Your task to perform on an android device: Search for duracell triple a on ebay.com, select the first entry, and add it to the cart. Image 0: 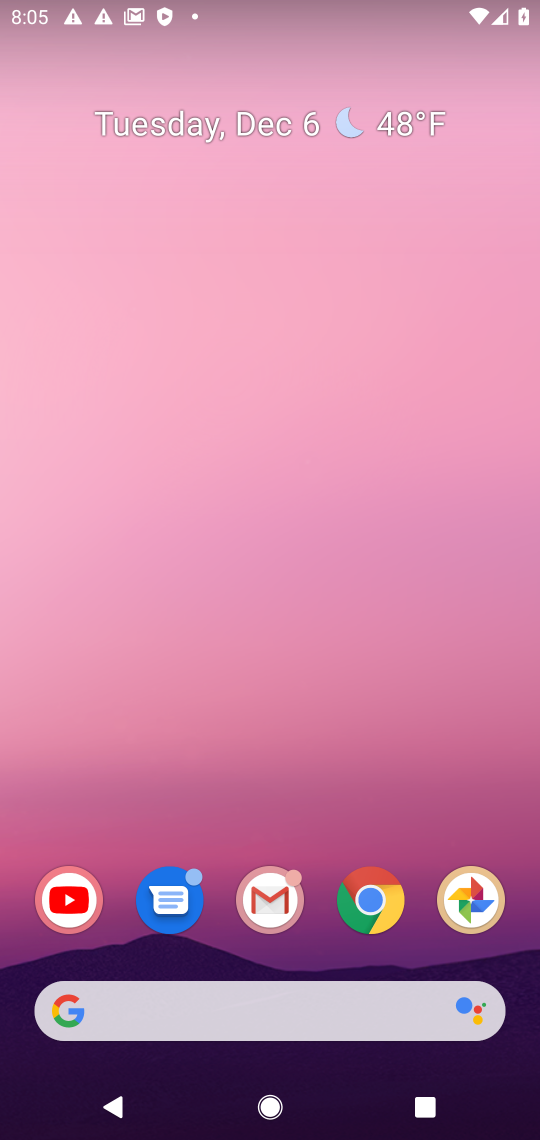
Step 0: drag from (194, 939) to (300, 277)
Your task to perform on an android device: Search for duracell triple a on ebay.com, select the first entry, and add it to the cart. Image 1: 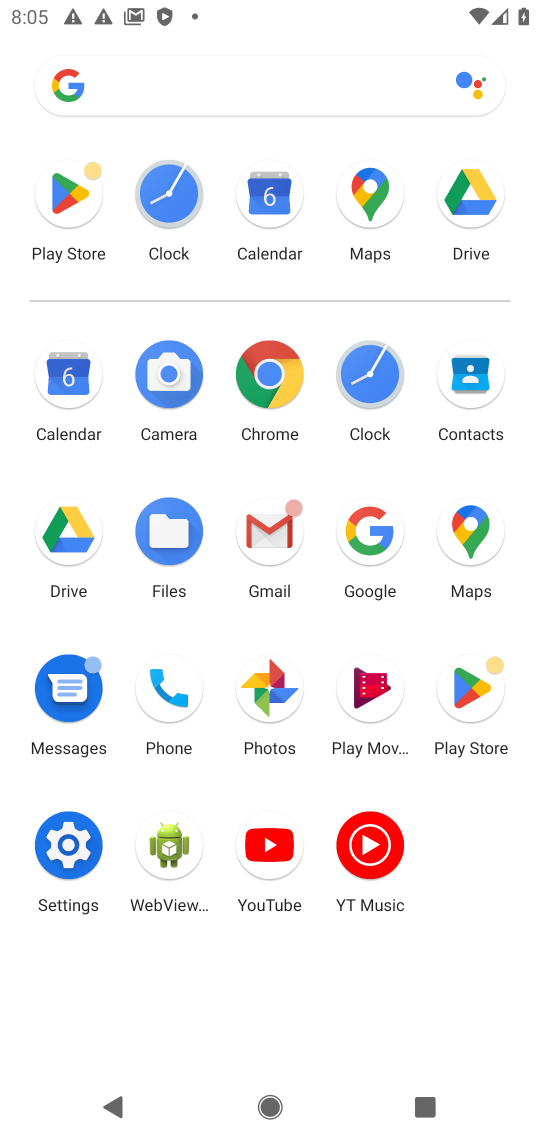
Step 1: click (380, 512)
Your task to perform on an android device: Search for duracell triple a on ebay.com, select the first entry, and add it to the cart. Image 2: 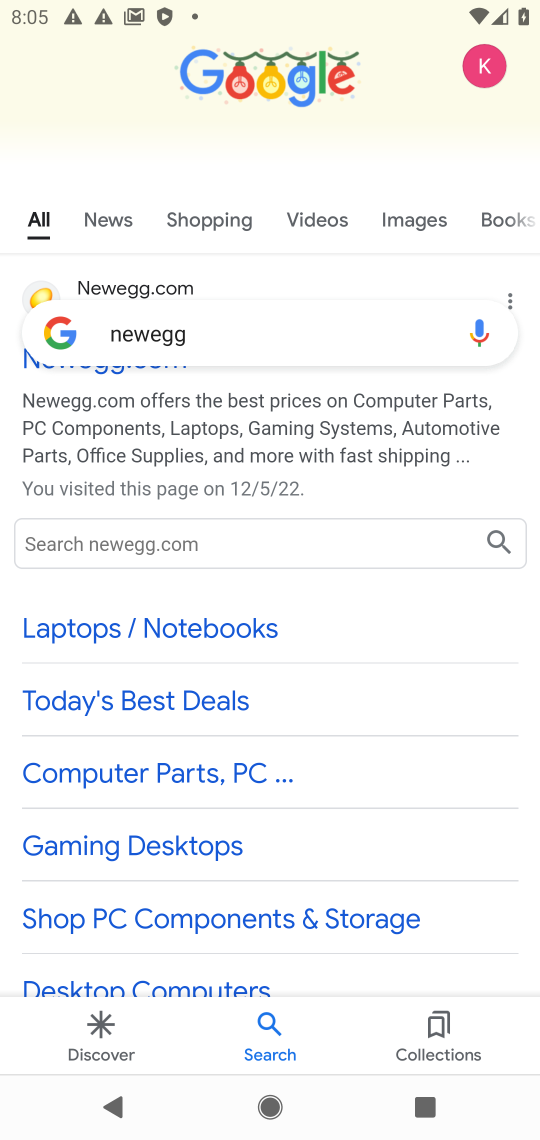
Step 2: click (161, 332)
Your task to perform on an android device: Search for duracell triple a on ebay.com, select the first entry, and add it to the cart. Image 3: 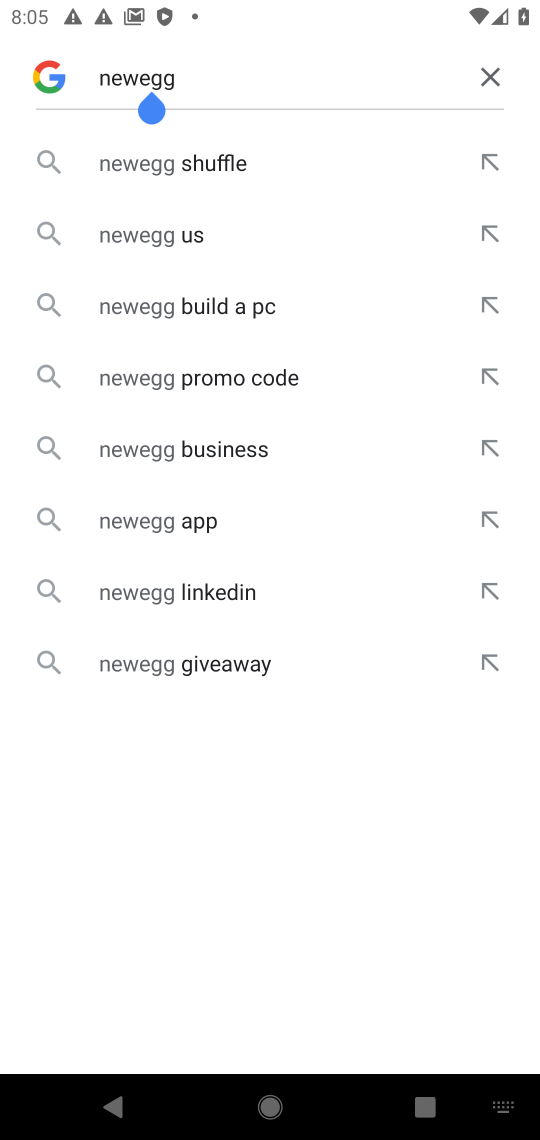
Step 3: click (481, 77)
Your task to perform on an android device: Search for duracell triple a on ebay.com, select the first entry, and add it to the cart. Image 4: 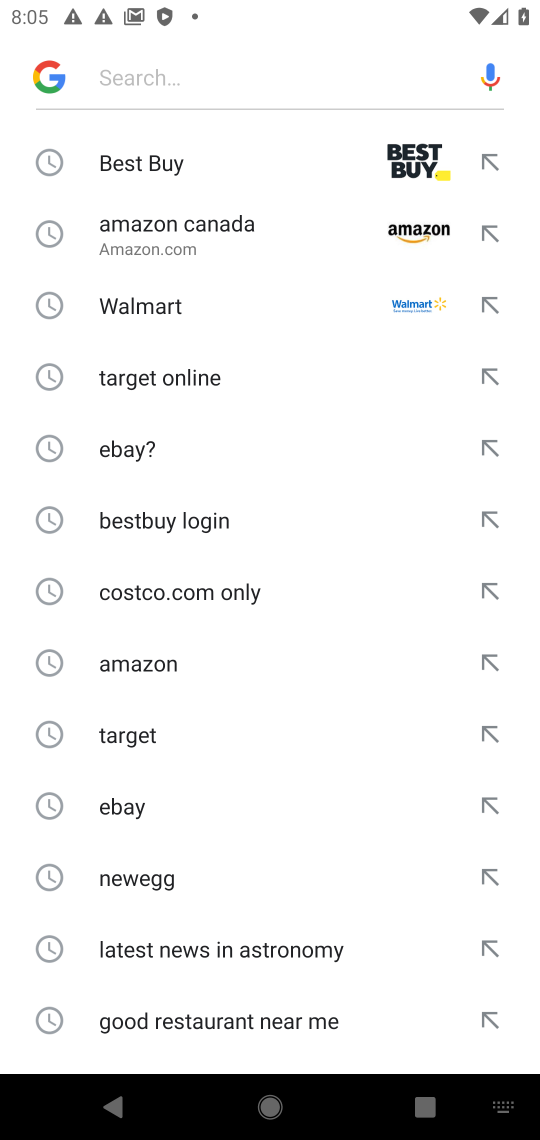
Step 4: click (119, 447)
Your task to perform on an android device: Search for duracell triple a on ebay.com, select the first entry, and add it to the cart. Image 5: 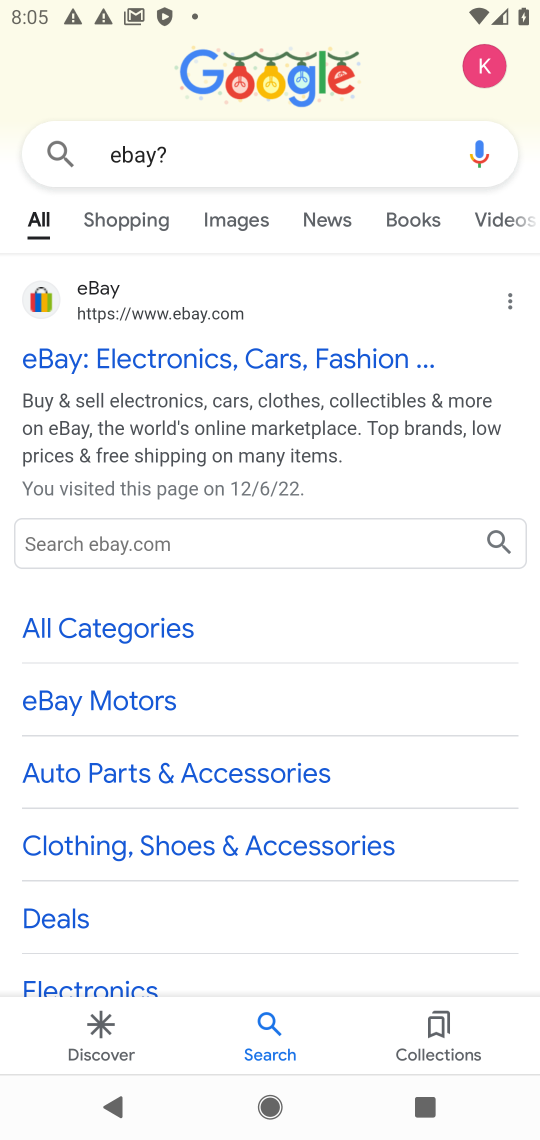
Step 5: click (143, 364)
Your task to perform on an android device: Search for duracell triple a on ebay.com, select the first entry, and add it to the cart. Image 6: 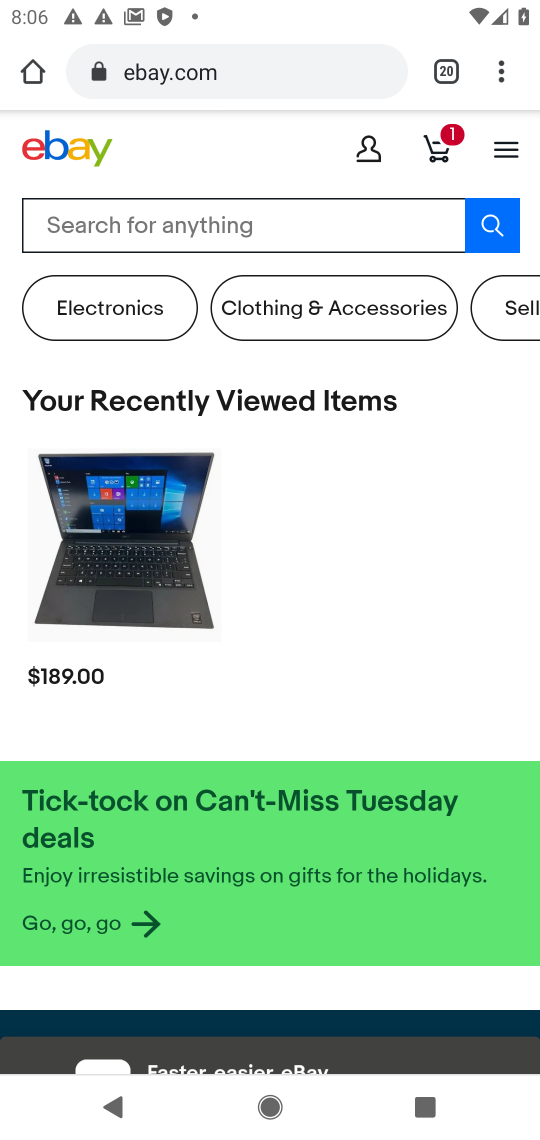
Step 6: click (184, 222)
Your task to perform on an android device: Search for duracell triple a on ebay.com, select the first entry, and add it to the cart. Image 7: 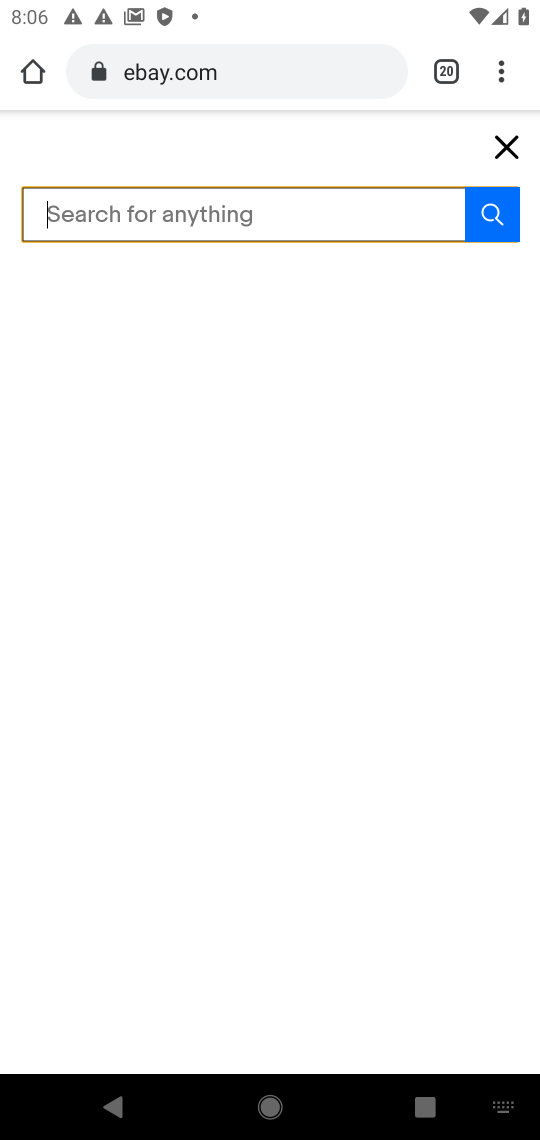
Step 7: type "duracell triple a"
Your task to perform on an android device: Search for duracell triple a on ebay.com, select the first entry, and add it to the cart. Image 8: 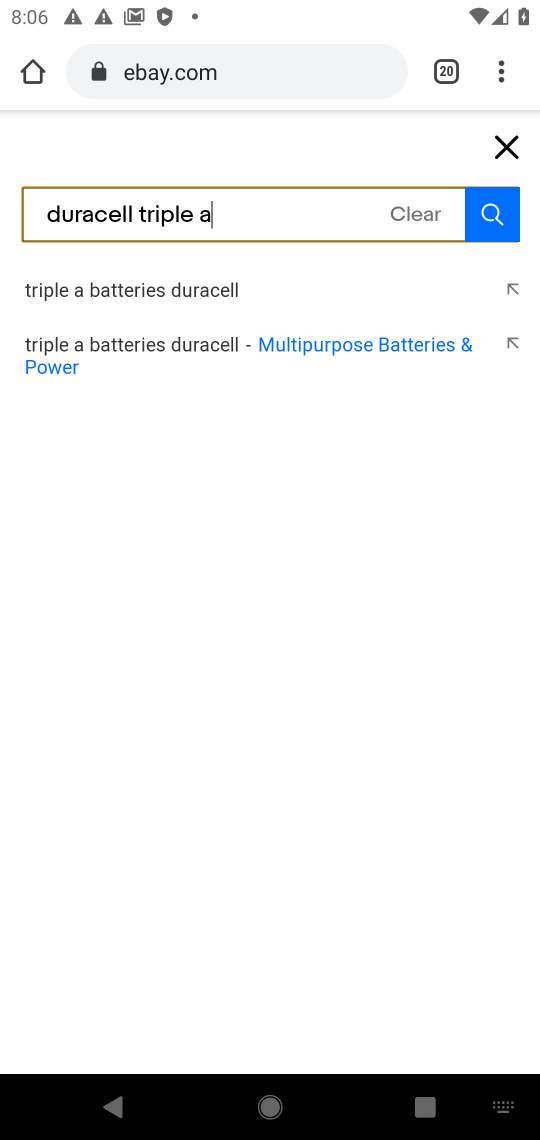
Step 8: click (118, 293)
Your task to perform on an android device: Search for duracell triple a on ebay.com, select the first entry, and add it to the cart. Image 9: 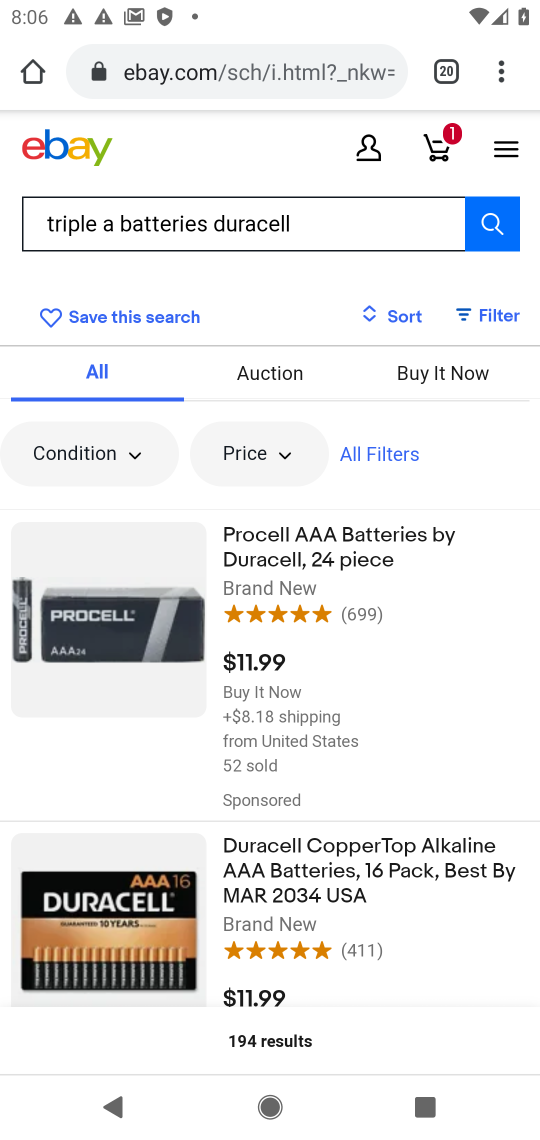
Step 9: click (261, 591)
Your task to perform on an android device: Search for duracell triple a on ebay.com, select the first entry, and add it to the cart. Image 10: 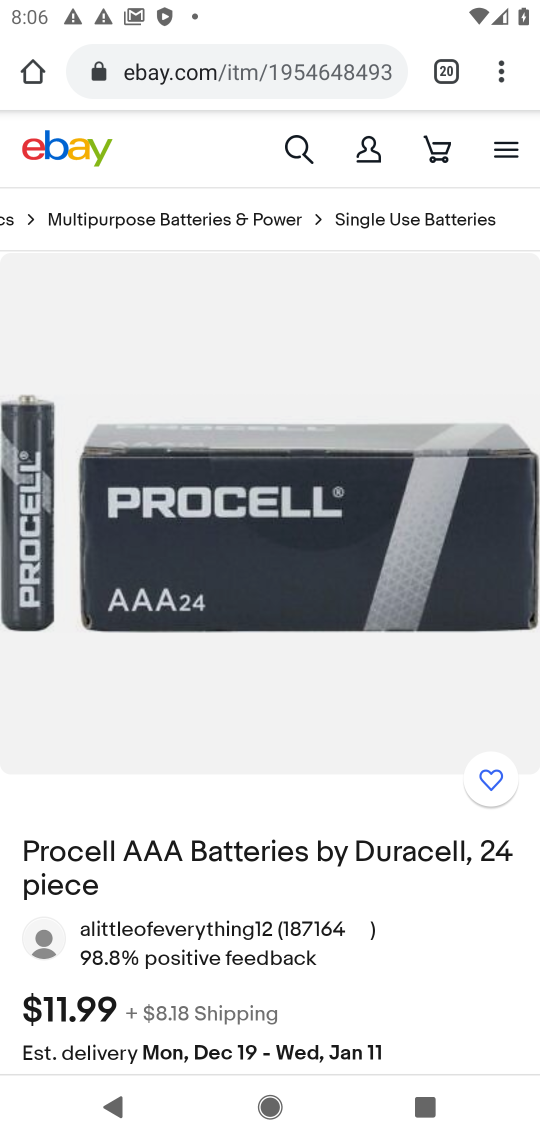
Step 10: drag from (229, 911) to (229, 453)
Your task to perform on an android device: Search for duracell triple a on ebay.com, select the first entry, and add it to the cart. Image 11: 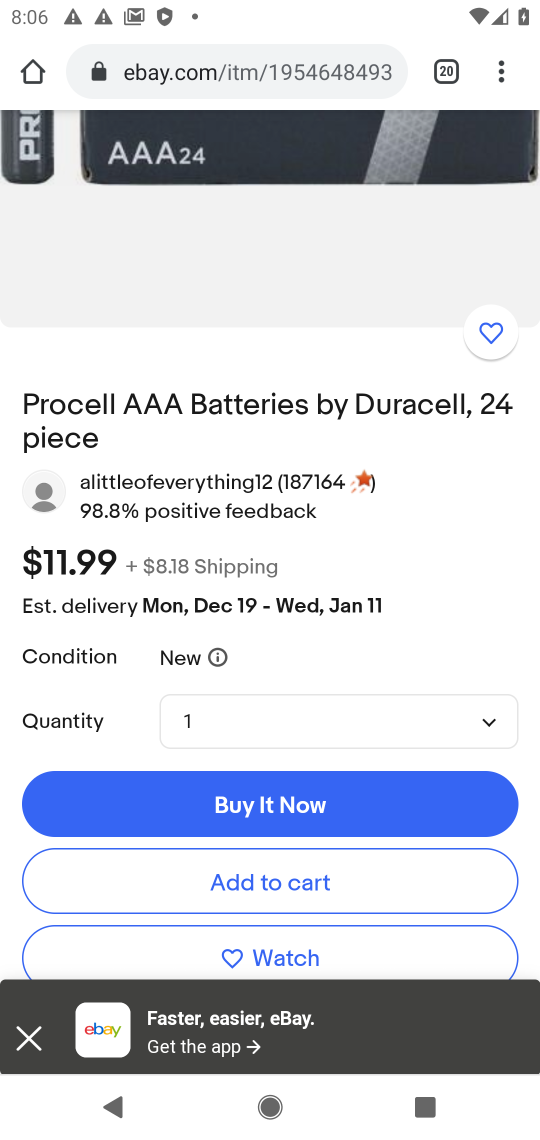
Step 11: click (259, 885)
Your task to perform on an android device: Search for duracell triple a on ebay.com, select the first entry, and add it to the cart. Image 12: 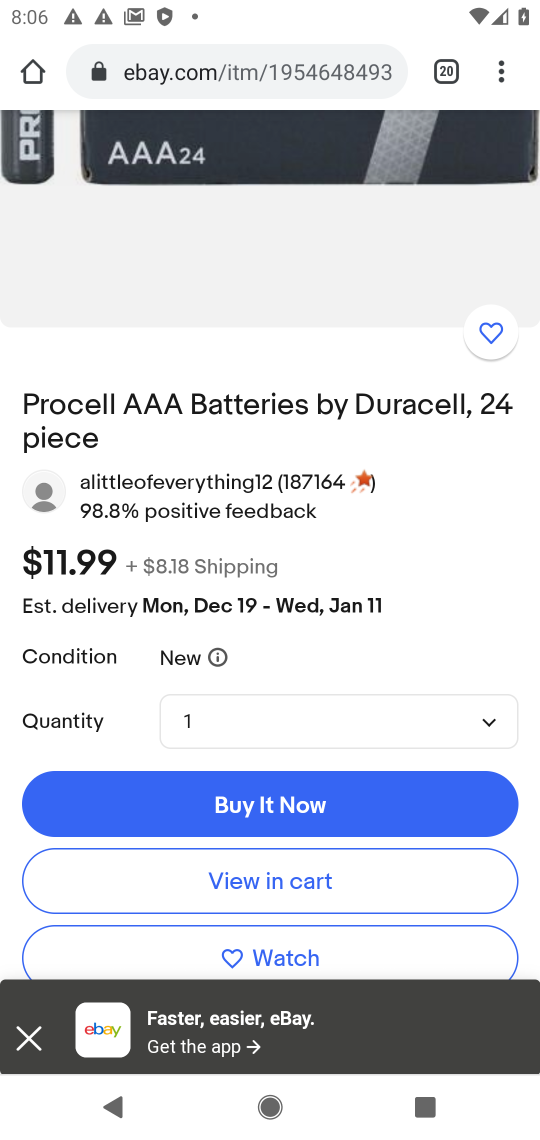
Step 12: task complete